Your task to perform on an android device: Open Chrome and go to settings Image 0: 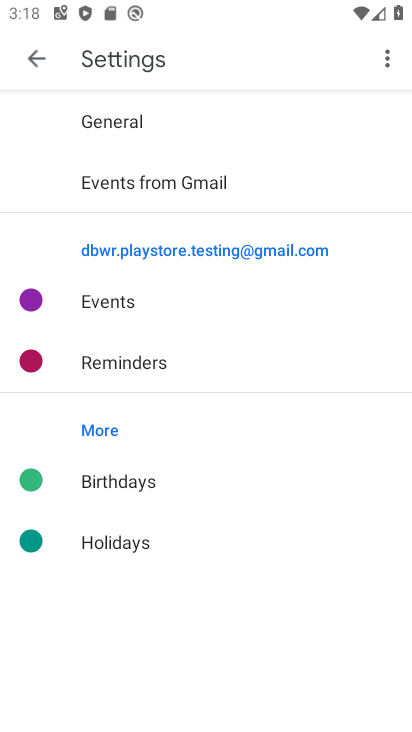
Step 0: press back button
Your task to perform on an android device: Open Chrome and go to settings Image 1: 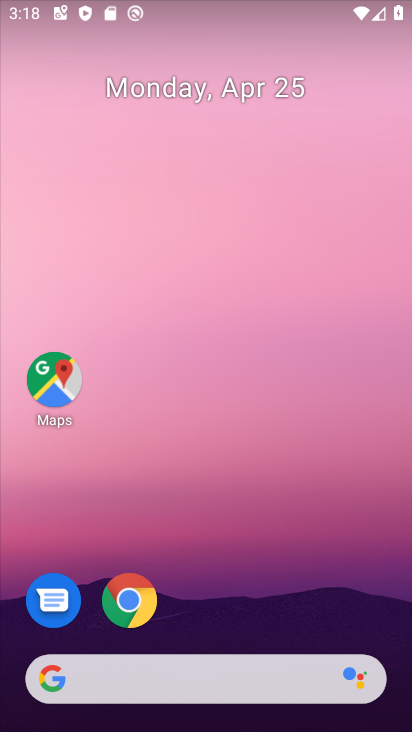
Step 1: drag from (271, 405) to (281, 14)
Your task to perform on an android device: Open Chrome and go to settings Image 2: 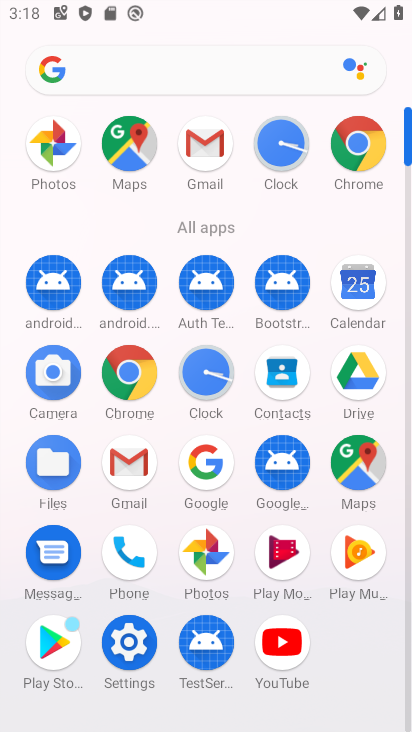
Step 2: drag from (1, 409) to (6, 247)
Your task to perform on an android device: Open Chrome and go to settings Image 3: 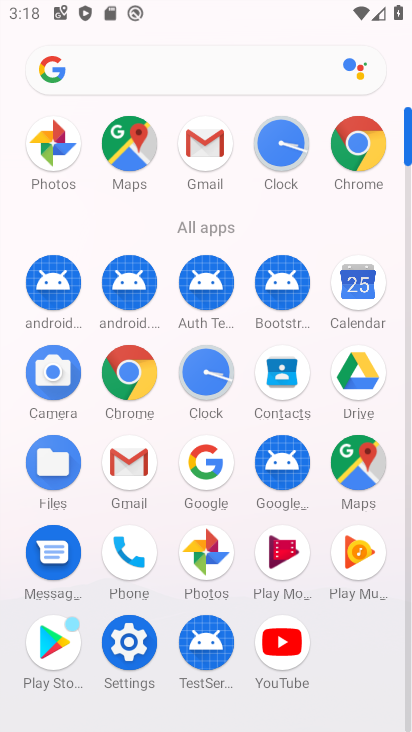
Step 3: click (358, 141)
Your task to perform on an android device: Open Chrome and go to settings Image 4: 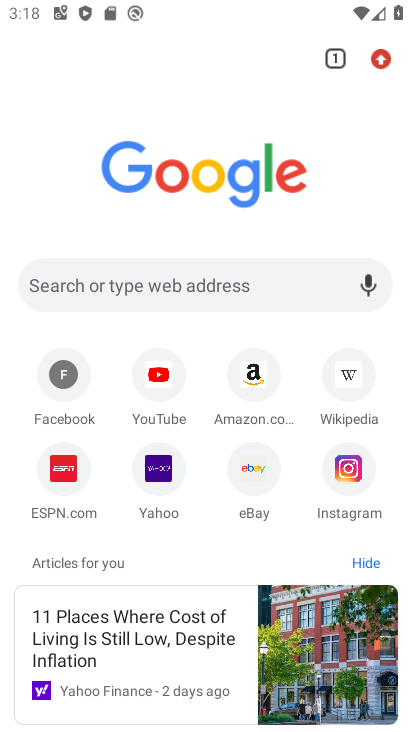
Step 4: task complete